Your task to perform on an android device: Go to Android settings Image 0: 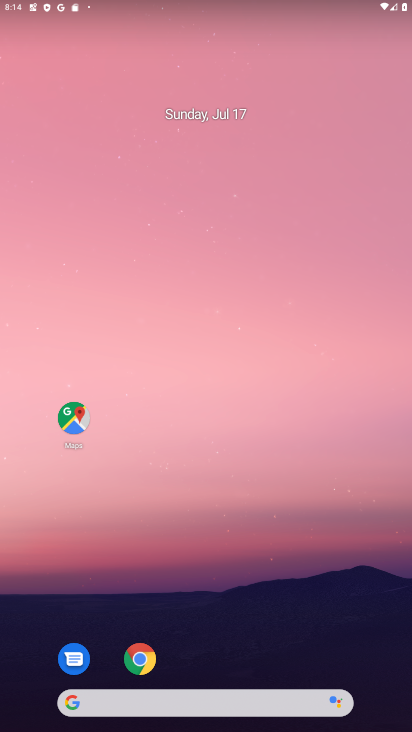
Step 0: drag from (247, 533) to (244, 128)
Your task to perform on an android device: Go to Android settings Image 1: 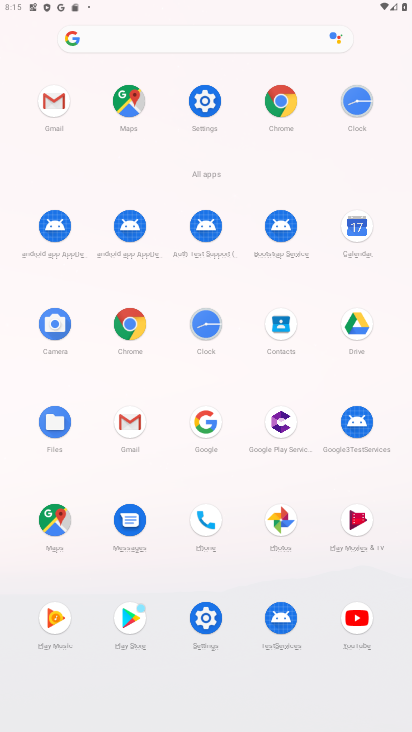
Step 1: click (209, 619)
Your task to perform on an android device: Go to Android settings Image 2: 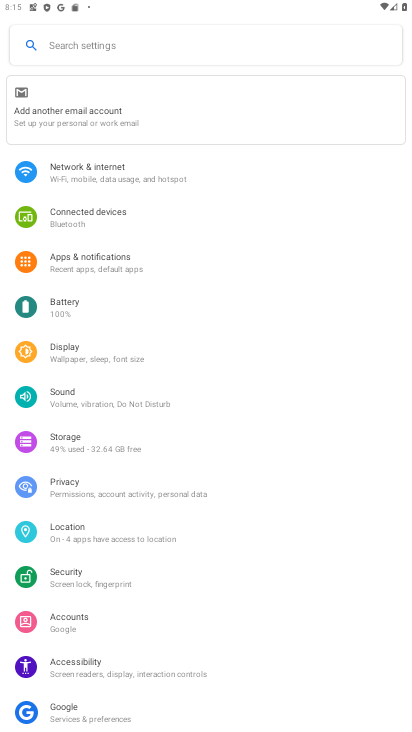
Step 2: task complete